Your task to perform on an android device: Empty the shopping cart on newegg. Add "macbook pro 15 inch" to the cart on newegg, then select checkout. Image 0: 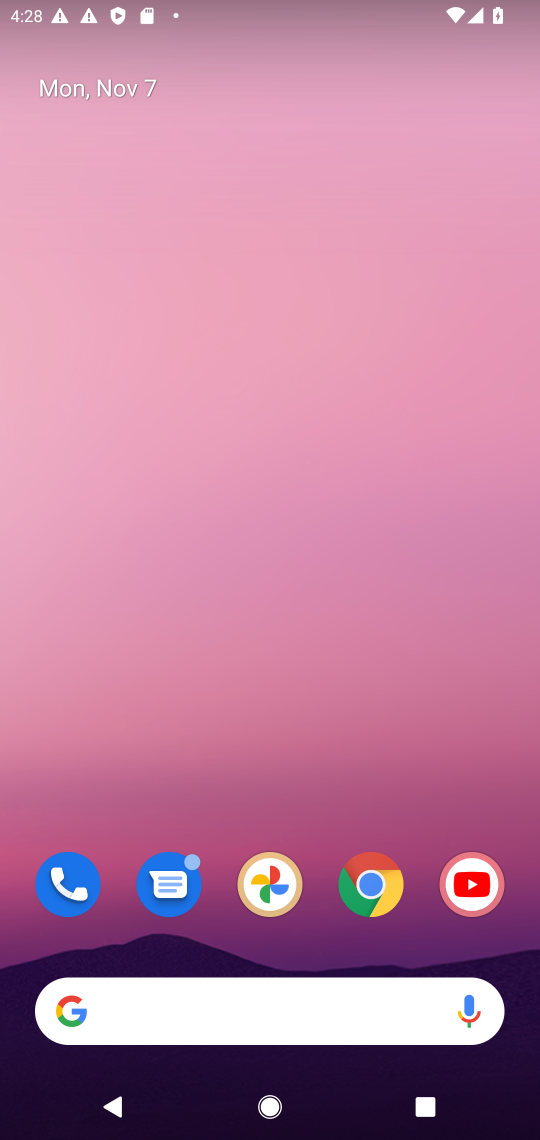
Step 0: drag from (300, 945) to (207, 168)
Your task to perform on an android device: Empty the shopping cart on newegg. Add "macbook pro 15 inch" to the cart on newegg, then select checkout. Image 1: 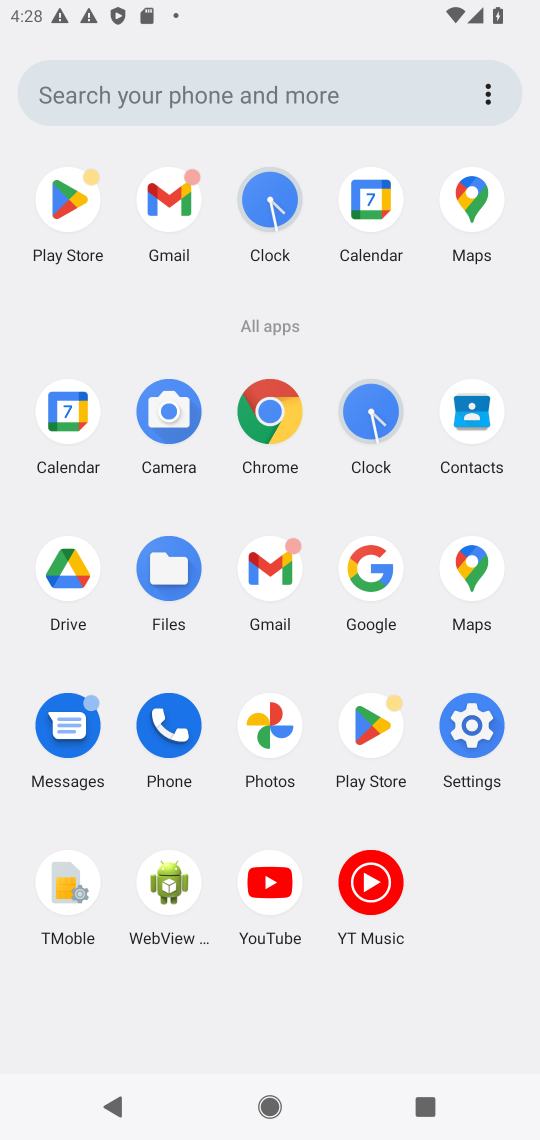
Step 1: click (279, 424)
Your task to perform on an android device: Empty the shopping cart on newegg. Add "macbook pro 15 inch" to the cart on newegg, then select checkout. Image 2: 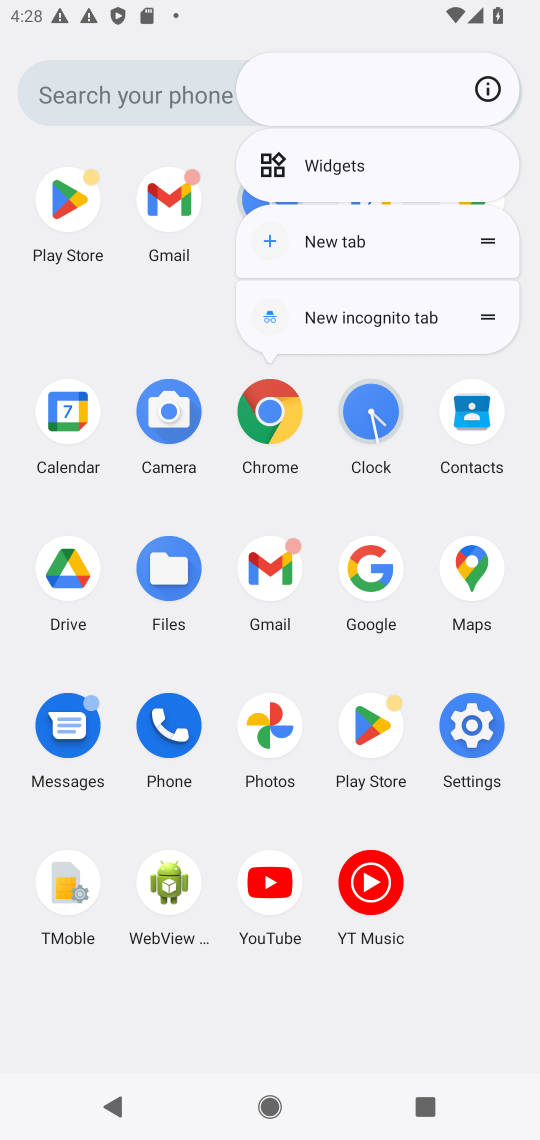
Step 2: click (268, 417)
Your task to perform on an android device: Empty the shopping cart on newegg. Add "macbook pro 15 inch" to the cart on newegg, then select checkout. Image 3: 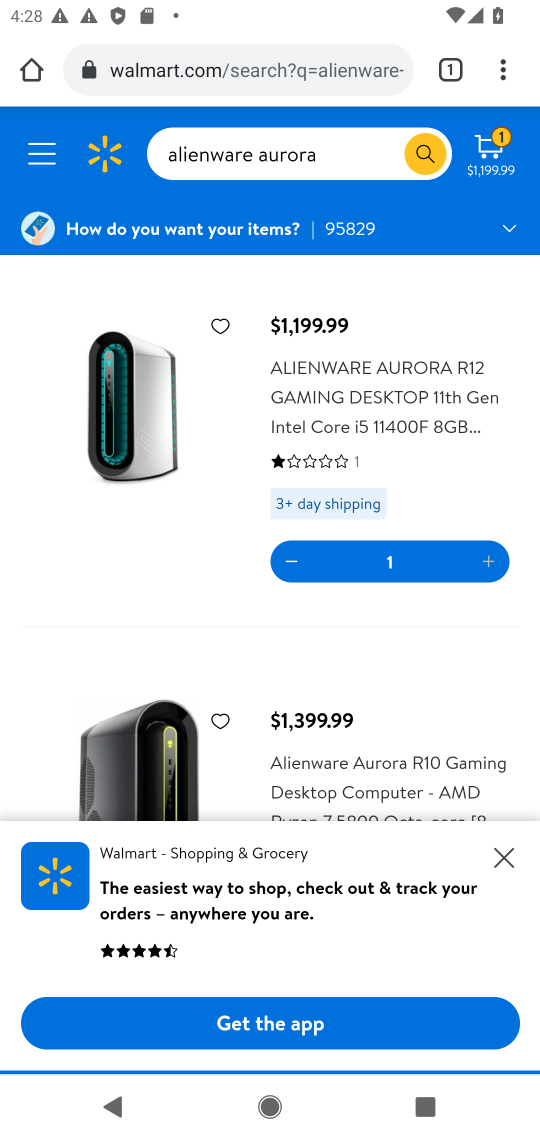
Step 3: click (280, 64)
Your task to perform on an android device: Empty the shopping cart on newegg. Add "macbook pro 15 inch" to the cart on newegg, then select checkout. Image 4: 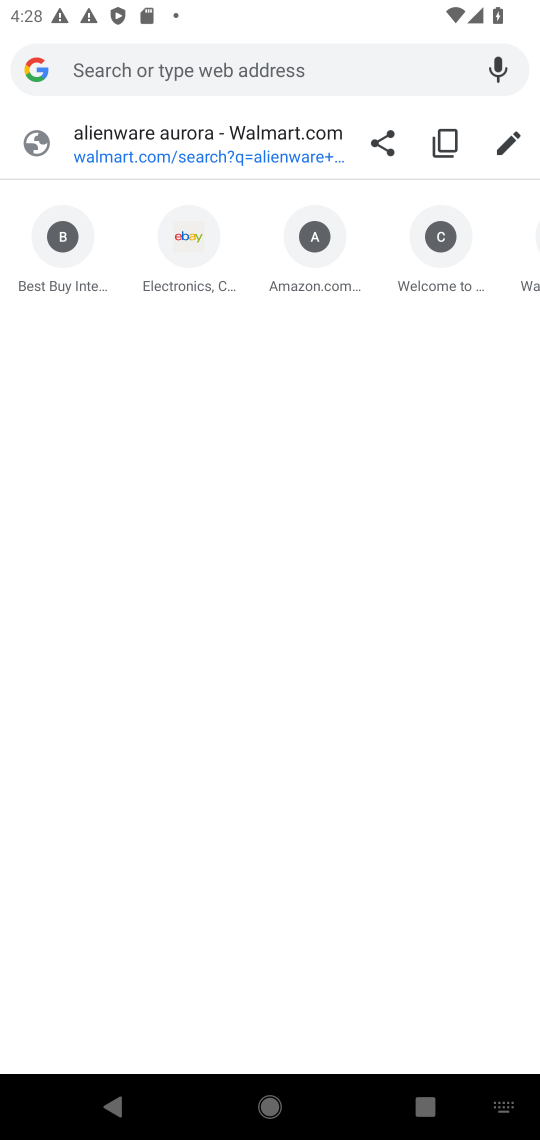
Step 4: type "newegg.com"
Your task to perform on an android device: Empty the shopping cart on newegg. Add "macbook pro 15 inch" to the cart on newegg, then select checkout. Image 5: 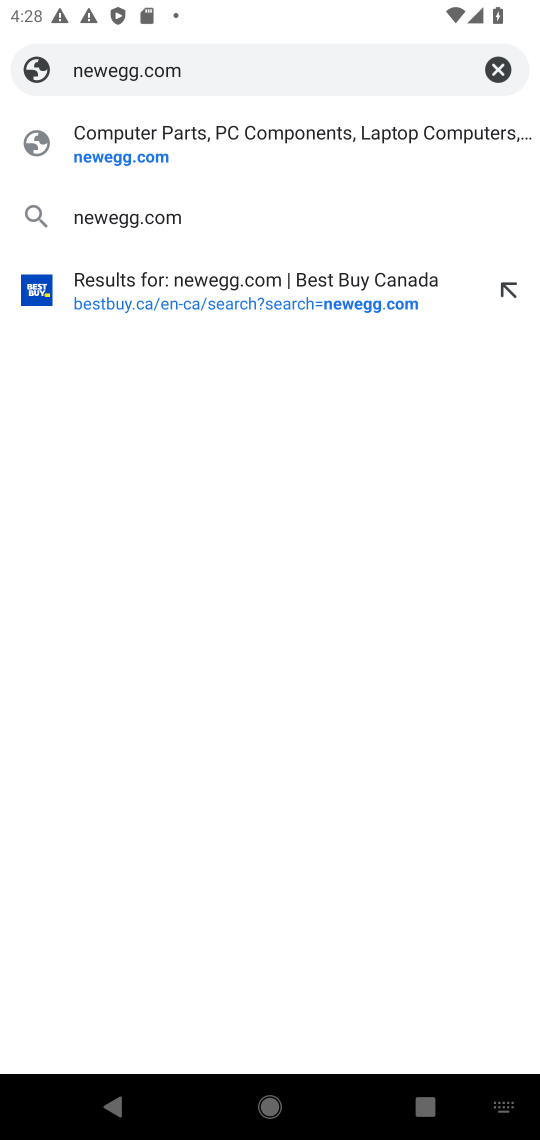
Step 5: press enter
Your task to perform on an android device: Empty the shopping cart on newegg. Add "macbook pro 15 inch" to the cart on newegg, then select checkout. Image 6: 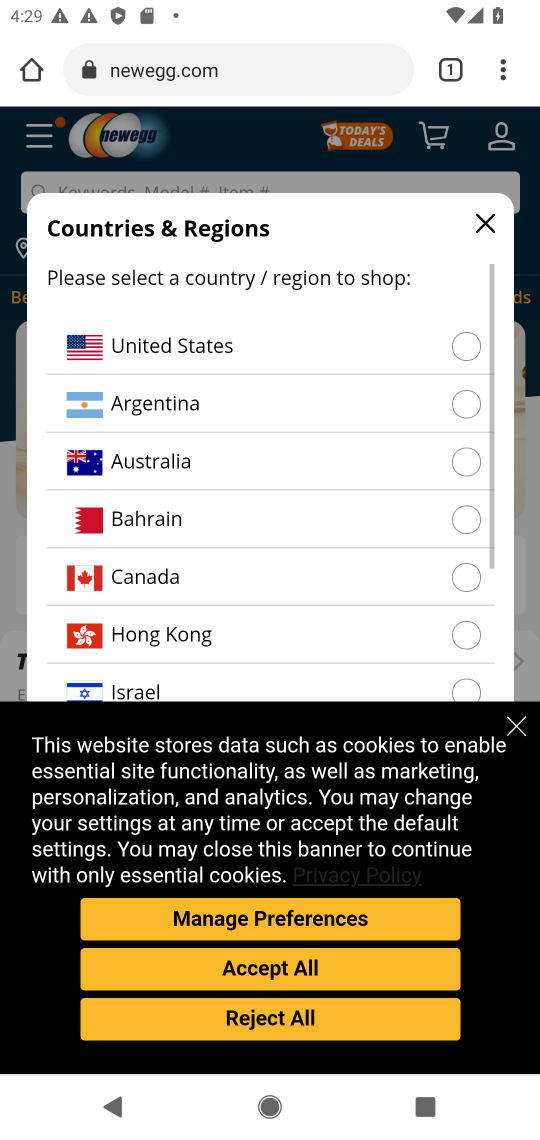
Step 6: click (484, 219)
Your task to perform on an android device: Empty the shopping cart on newegg. Add "macbook pro 15 inch" to the cart on newegg, then select checkout. Image 7: 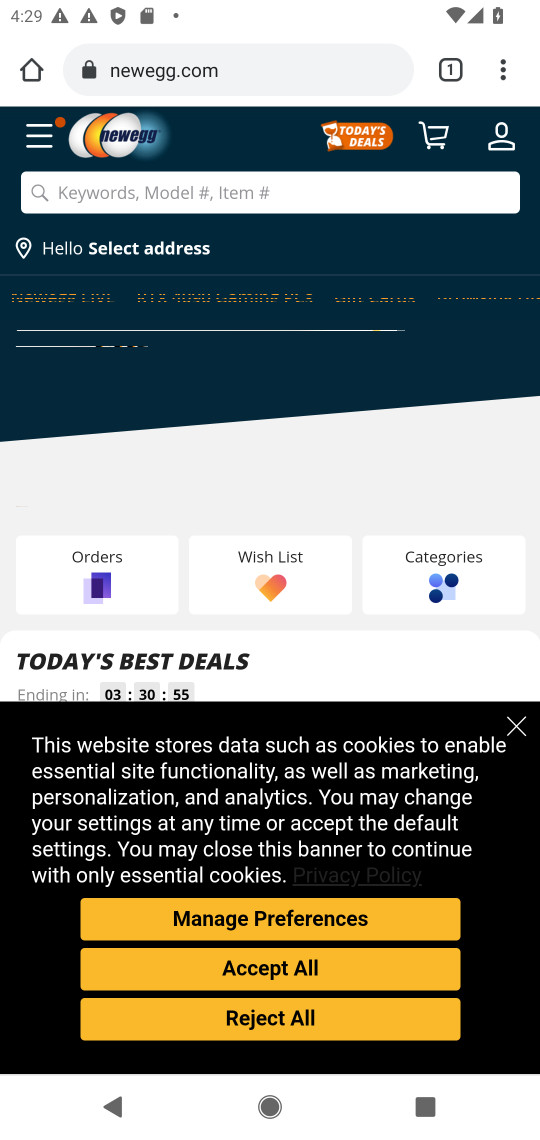
Step 7: click (493, 138)
Your task to perform on an android device: Empty the shopping cart on newegg. Add "macbook pro 15 inch" to the cart on newegg, then select checkout. Image 8: 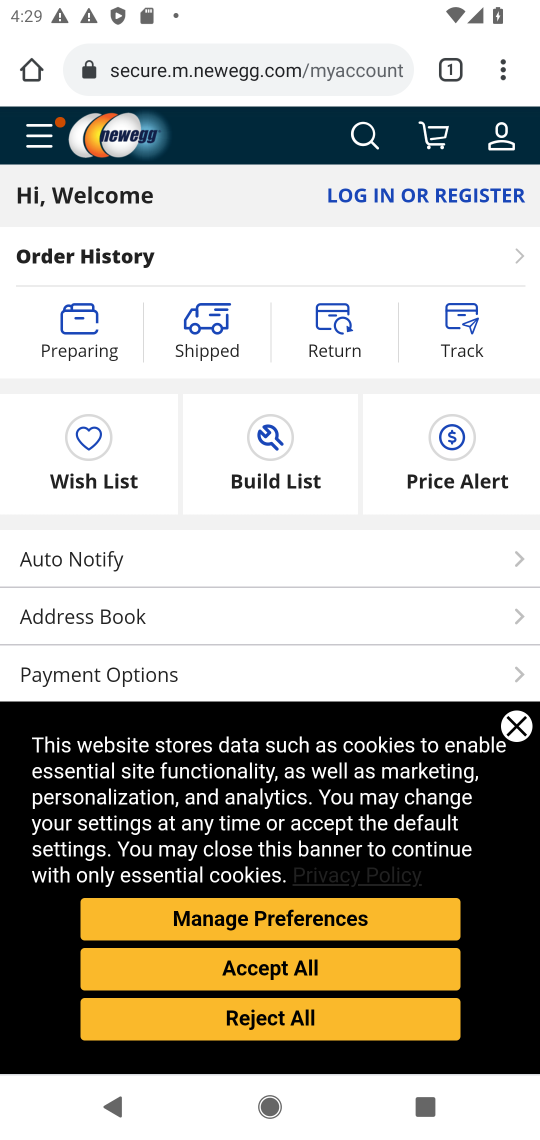
Step 8: click (357, 146)
Your task to perform on an android device: Empty the shopping cart on newegg. Add "macbook pro 15 inch" to the cart on newegg, then select checkout. Image 9: 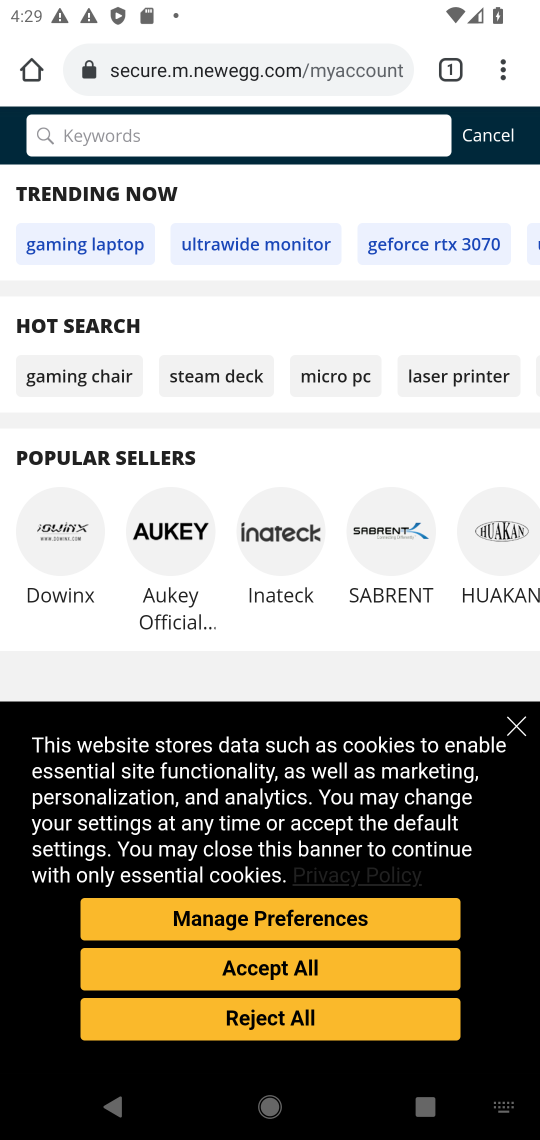
Step 9: type "macbook pro 15 inch"
Your task to perform on an android device: Empty the shopping cart on newegg. Add "macbook pro 15 inch" to the cart on newegg, then select checkout. Image 10: 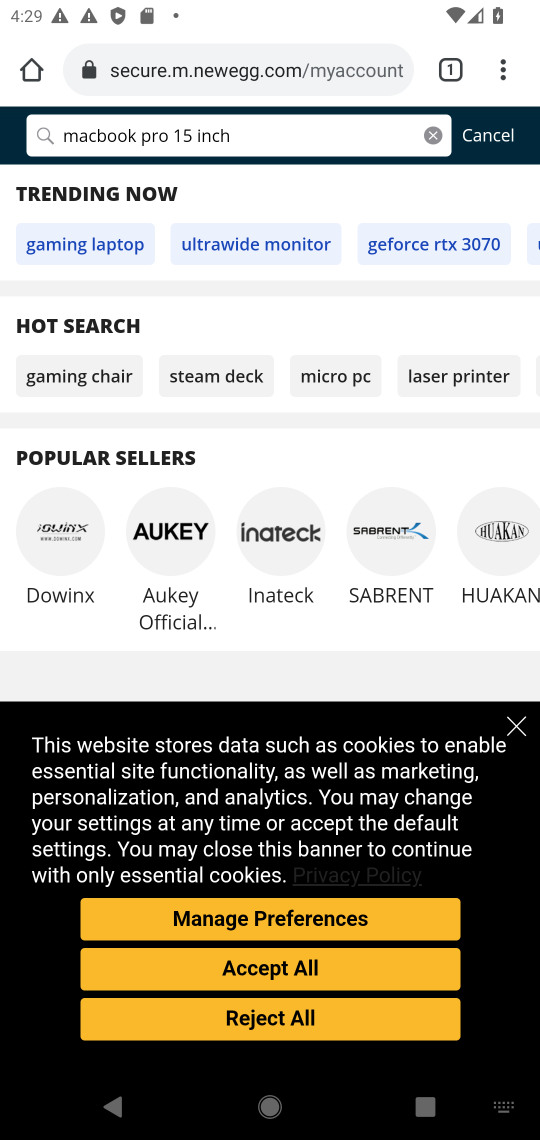
Step 10: press enter
Your task to perform on an android device: Empty the shopping cart on newegg. Add "macbook pro 15 inch" to the cart on newegg, then select checkout. Image 11: 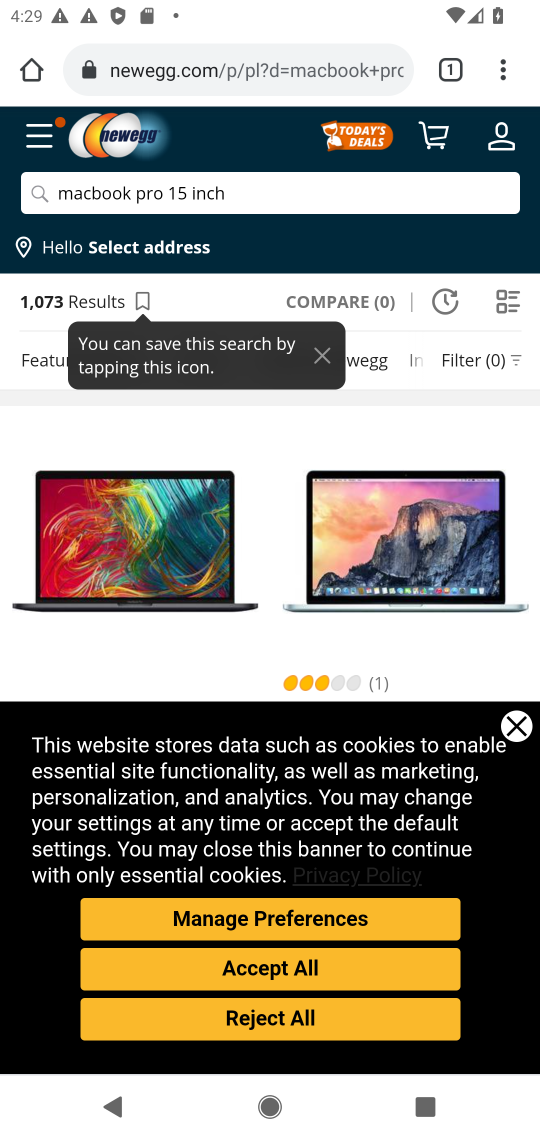
Step 11: click (388, 966)
Your task to perform on an android device: Empty the shopping cart on newegg. Add "macbook pro 15 inch" to the cart on newegg, then select checkout. Image 12: 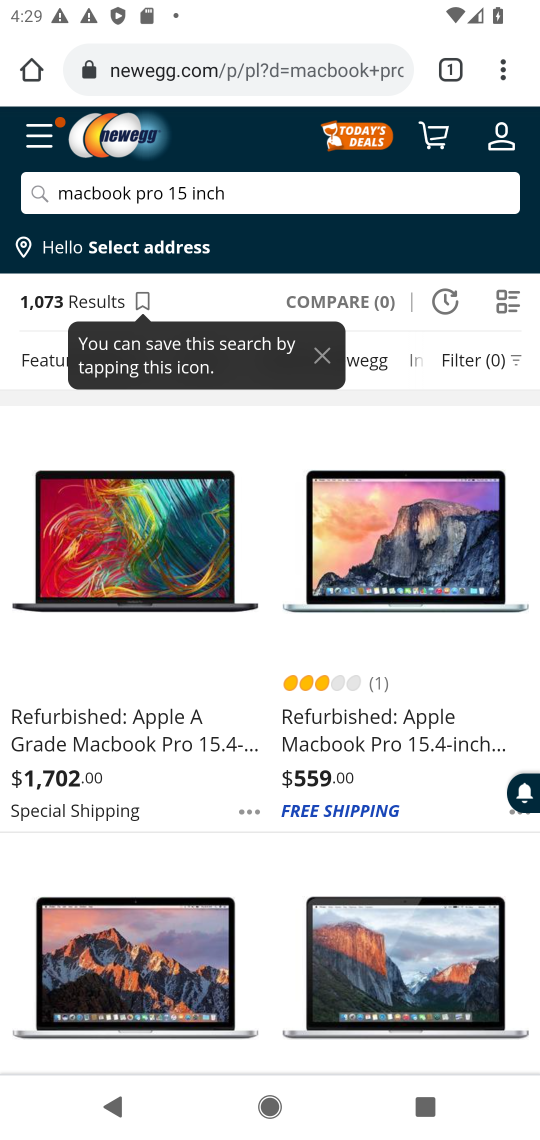
Step 12: task complete